Your task to perform on an android device: Check the weather Image 0: 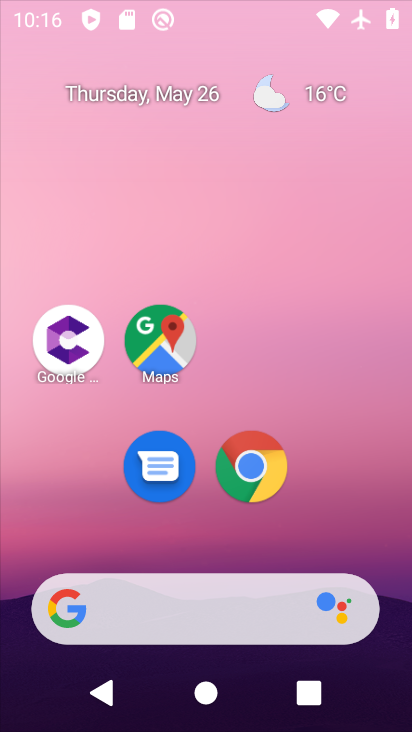
Step 0: click (250, 472)
Your task to perform on an android device: Check the weather Image 1: 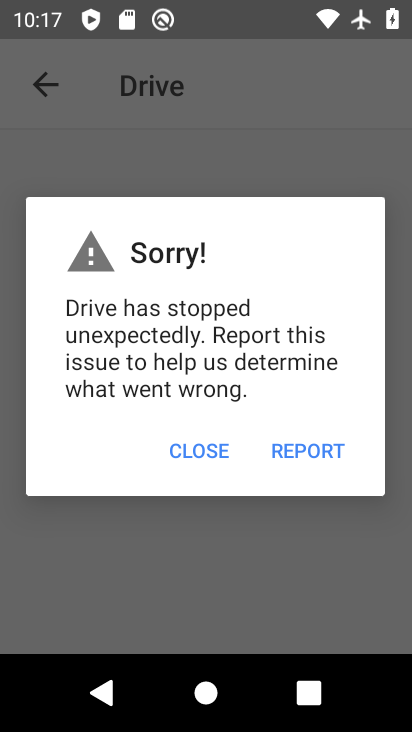
Step 1: press home button
Your task to perform on an android device: Check the weather Image 2: 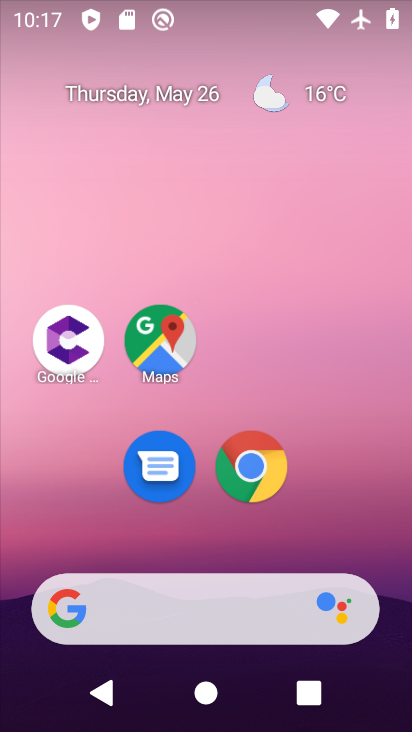
Step 2: click (187, 614)
Your task to perform on an android device: Check the weather Image 3: 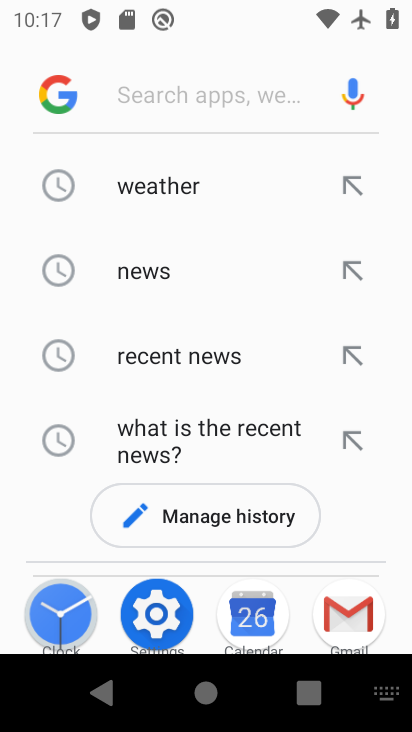
Step 3: click (166, 179)
Your task to perform on an android device: Check the weather Image 4: 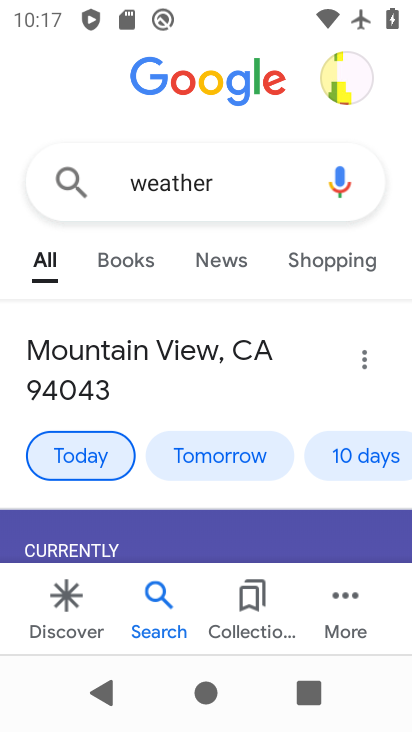
Step 4: task complete